Your task to perform on an android device: Go to sound settings Image 0: 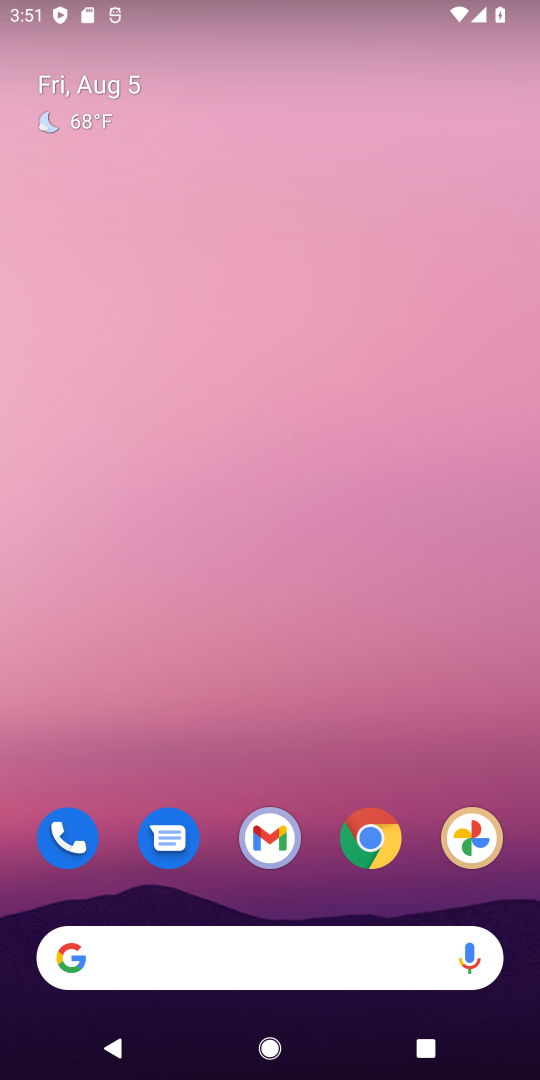
Step 0: drag from (282, 930) to (290, 383)
Your task to perform on an android device: Go to sound settings Image 1: 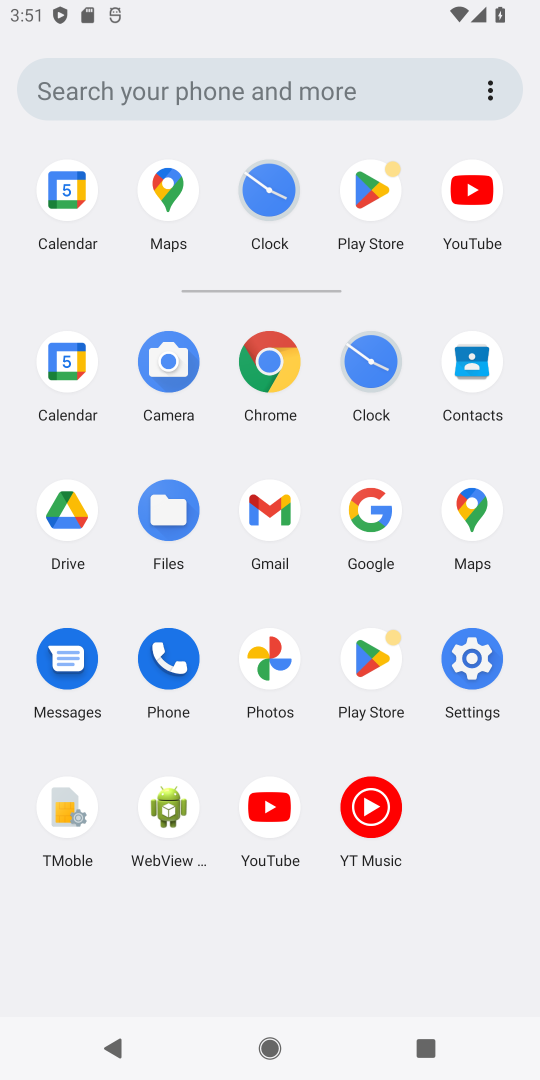
Step 1: click (472, 650)
Your task to perform on an android device: Go to sound settings Image 2: 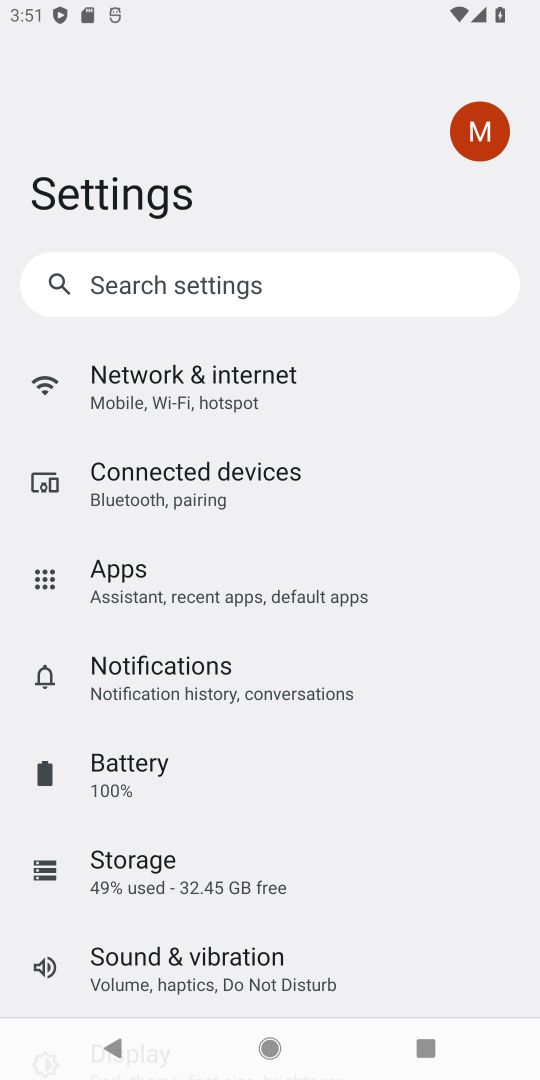
Step 2: click (198, 947)
Your task to perform on an android device: Go to sound settings Image 3: 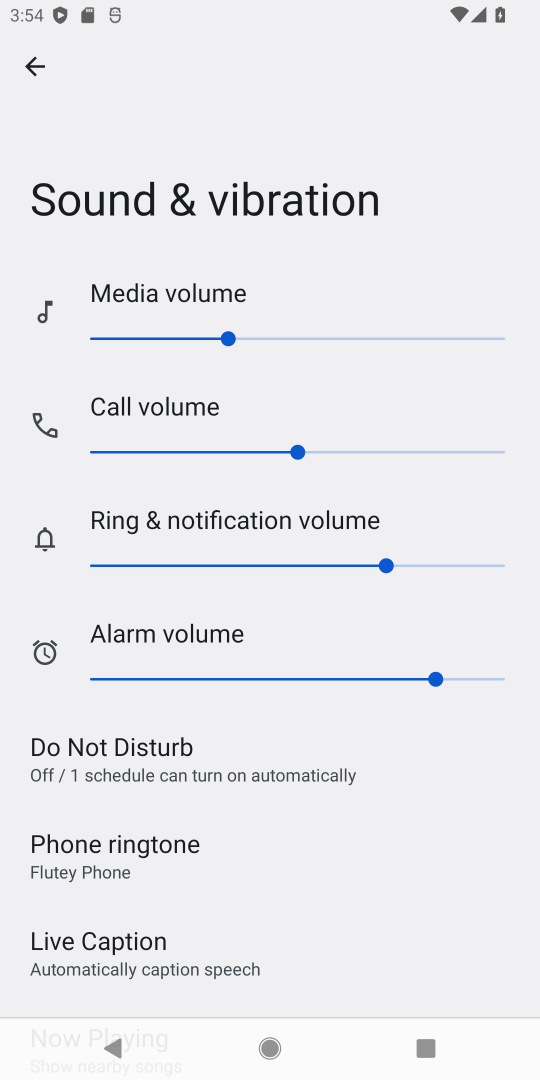
Step 3: task complete